Your task to perform on an android device: Show me productivity apps on the Play Store Image 0: 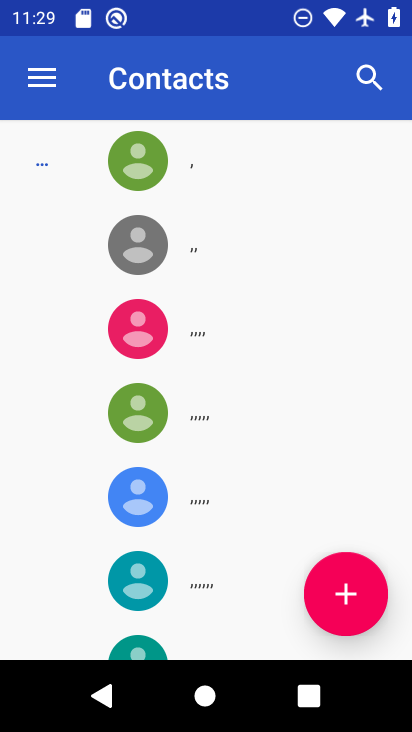
Step 0: press back button
Your task to perform on an android device: Show me productivity apps on the Play Store Image 1: 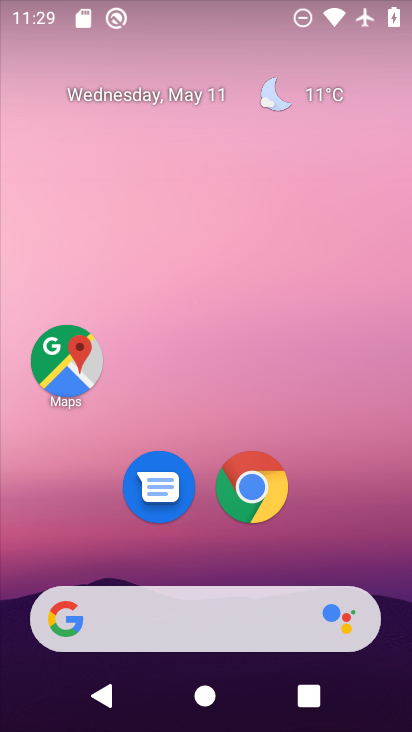
Step 1: drag from (324, 523) to (253, 90)
Your task to perform on an android device: Show me productivity apps on the Play Store Image 2: 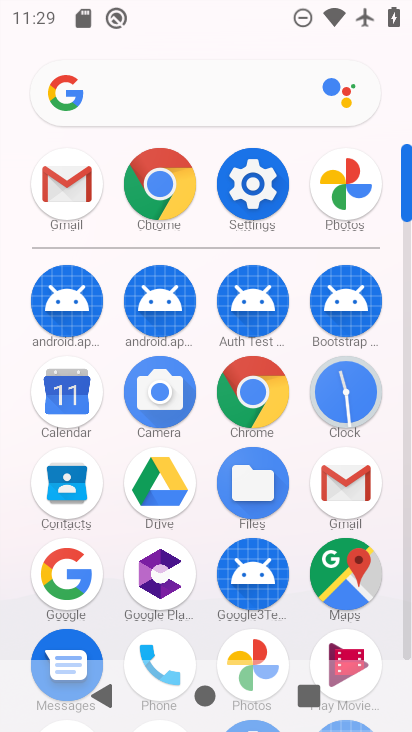
Step 2: drag from (18, 554) to (21, 328)
Your task to perform on an android device: Show me productivity apps on the Play Store Image 3: 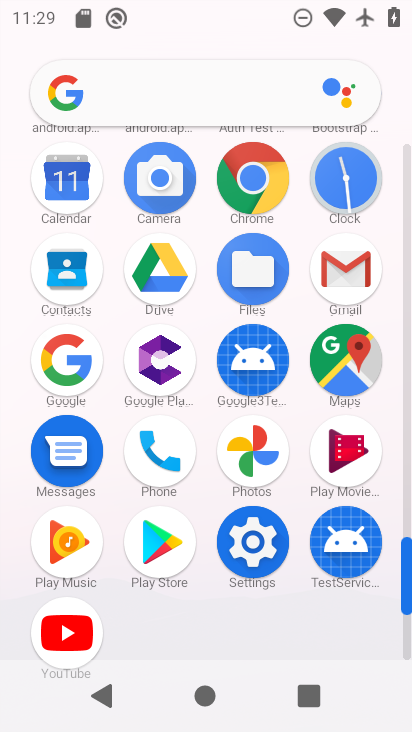
Step 3: click (341, 447)
Your task to perform on an android device: Show me productivity apps on the Play Store Image 4: 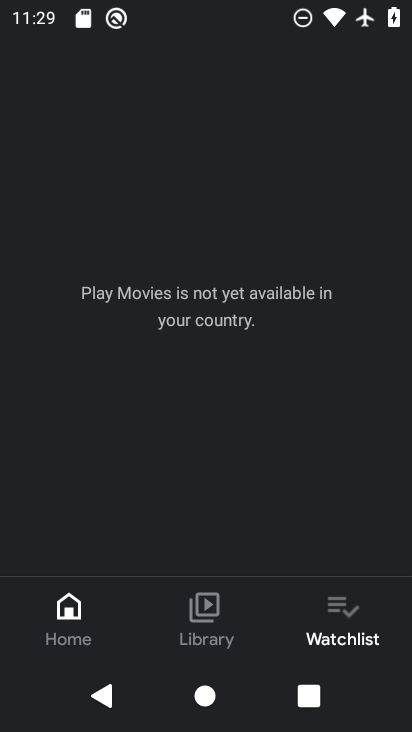
Step 4: click (317, 607)
Your task to perform on an android device: Show me productivity apps on the Play Store Image 5: 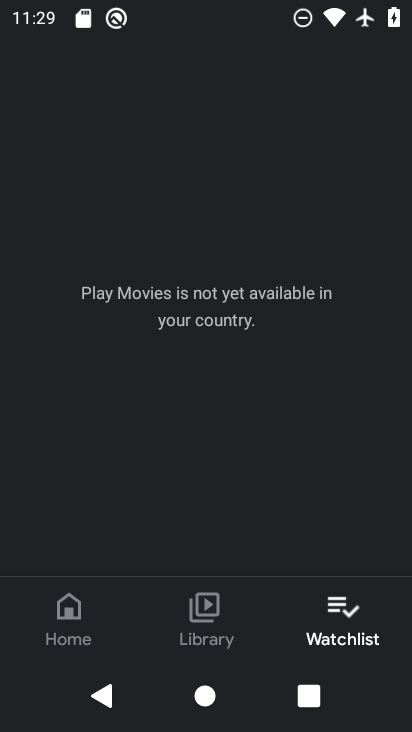
Step 5: task complete